Your task to perform on an android device: Open Google Maps Image 0: 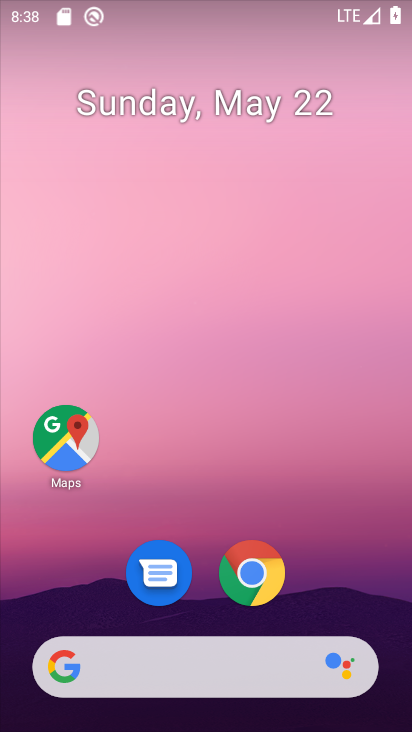
Step 0: drag from (209, 576) to (241, 285)
Your task to perform on an android device: Open Google Maps Image 1: 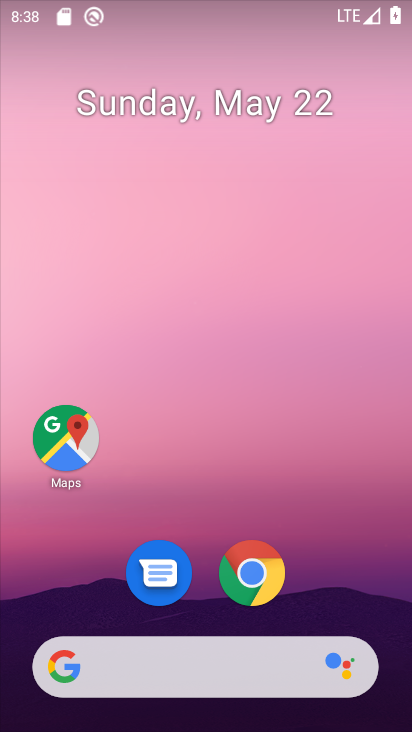
Step 1: click (94, 425)
Your task to perform on an android device: Open Google Maps Image 2: 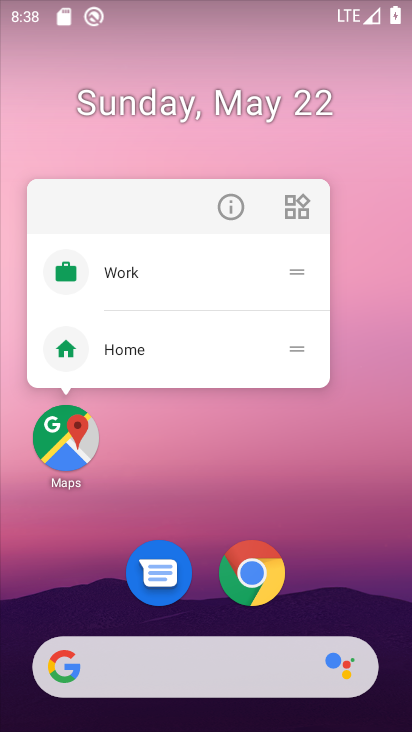
Step 2: drag from (203, 624) to (240, 178)
Your task to perform on an android device: Open Google Maps Image 3: 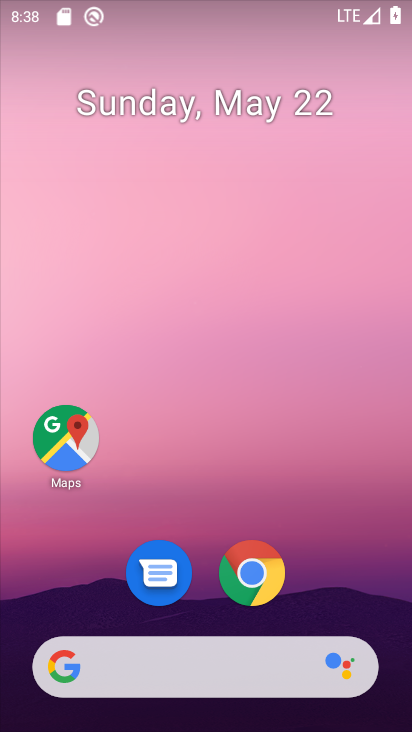
Step 3: drag from (221, 607) to (243, 26)
Your task to perform on an android device: Open Google Maps Image 4: 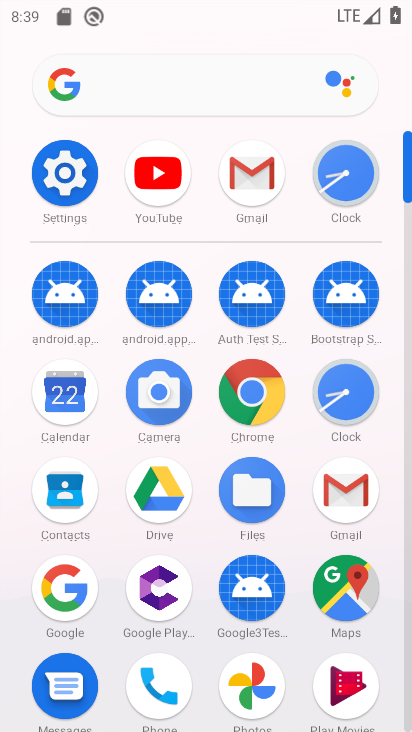
Step 4: click (333, 611)
Your task to perform on an android device: Open Google Maps Image 5: 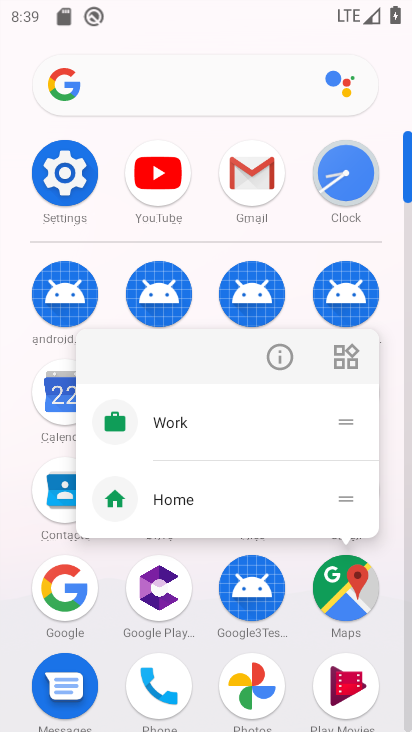
Step 5: click (288, 356)
Your task to perform on an android device: Open Google Maps Image 6: 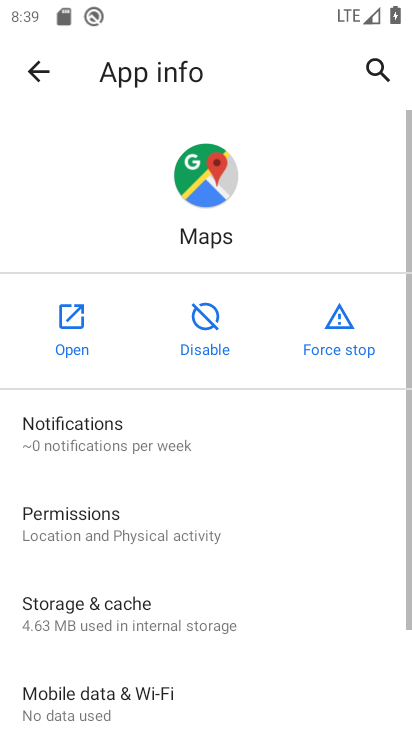
Step 6: click (78, 319)
Your task to perform on an android device: Open Google Maps Image 7: 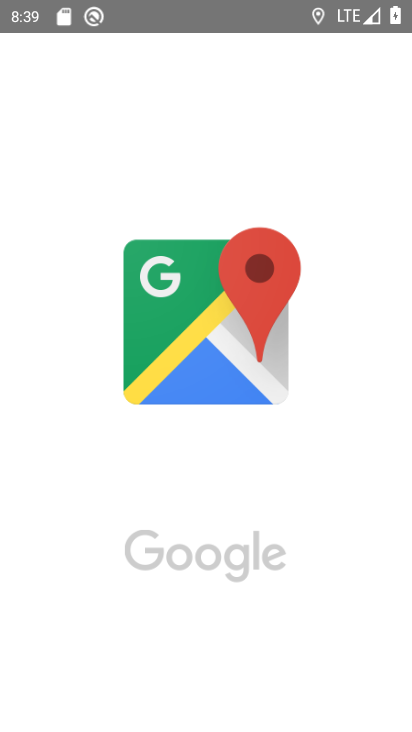
Step 7: task complete